Your task to perform on an android device: Go to ESPN.com Image 0: 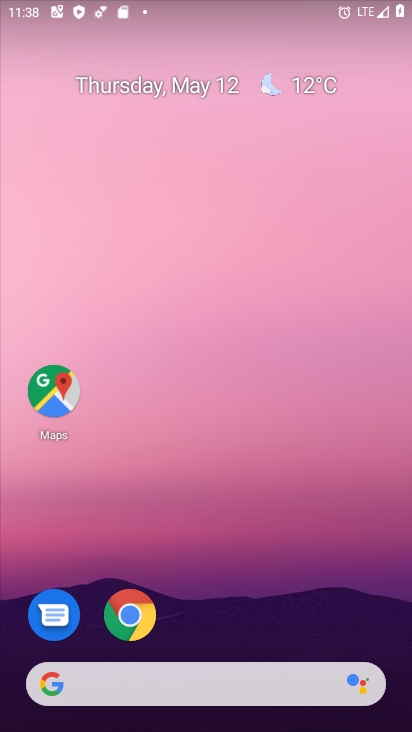
Step 0: click (234, 694)
Your task to perform on an android device: Go to ESPN.com Image 1: 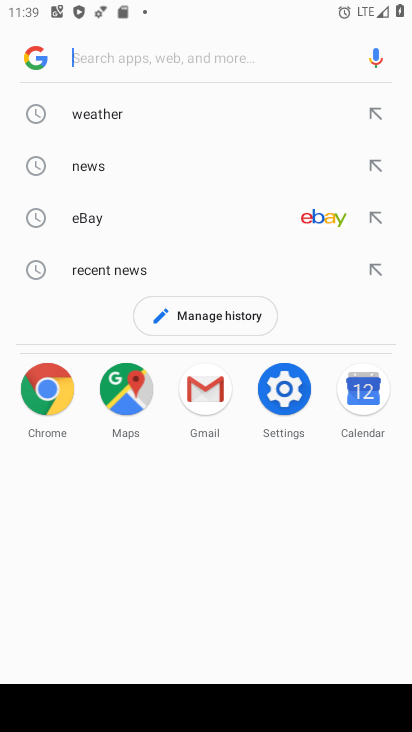
Step 1: type "espn.com"
Your task to perform on an android device: Go to ESPN.com Image 2: 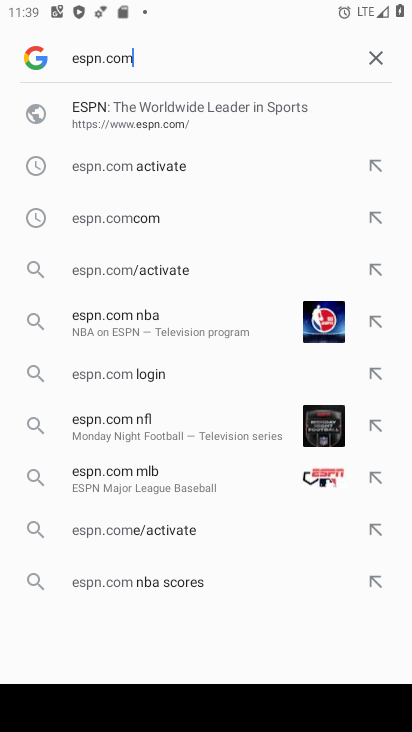
Step 2: click (110, 114)
Your task to perform on an android device: Go to ESPN.com Image 3: 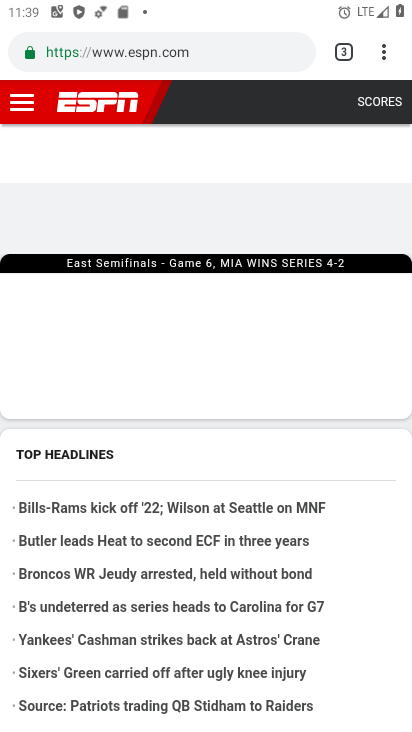
Step 3: task complete